Your task to perform on an android device: Open Reddit.com Image 0: 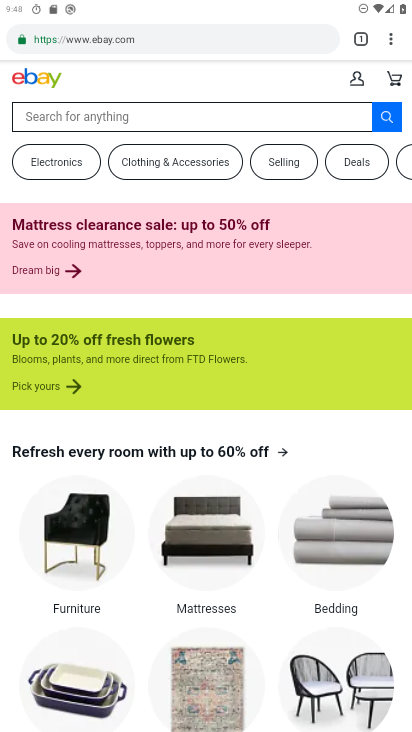
Step 0: click (260, 37)
Your task to perform on an android device: Open Reddit.com Image 1: 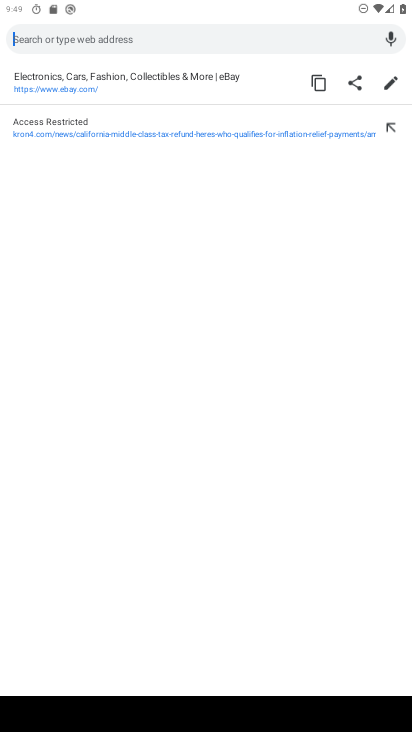
Step 1: type "reddit.com"
Your task to perform on an android device: Open Reddit.com Image 2: 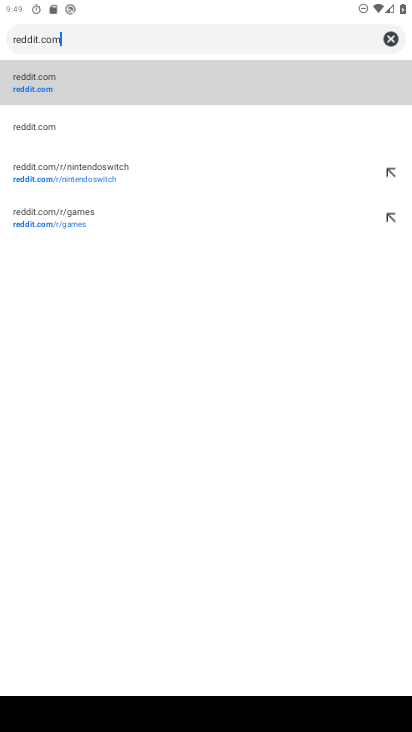
Step 2: click (34, 84)
Your task to perform on an android device: Open Reddit.com Image 3: 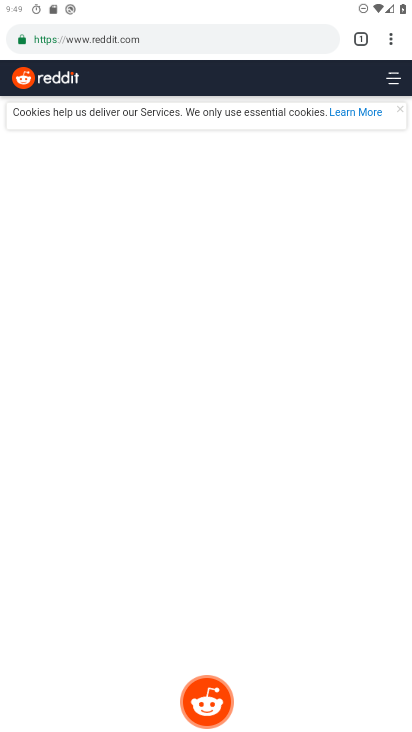
Step 3: task complete